Your task to perform on an android device: Open Wikipedia Image 0: 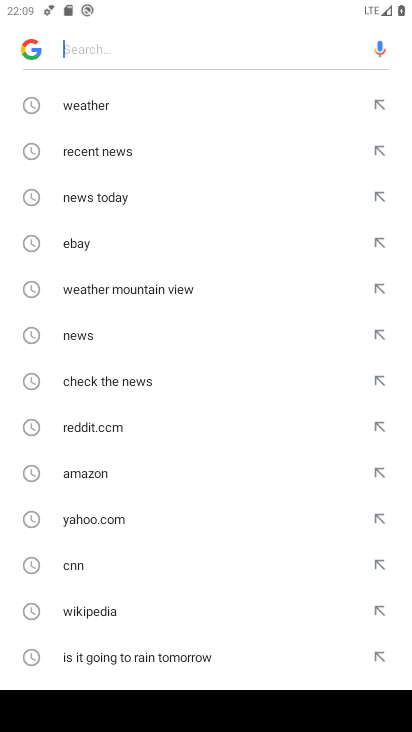
Step 0: press home button
Your task to perform on an android device: Open Wikipedia Image 1: 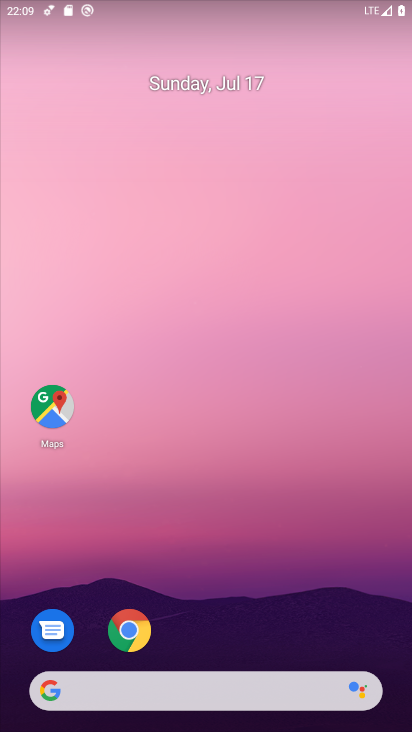
Step 1: drag from (208, 588) to (294, 29)
Your task to perform on an android device: Open Wikipedia Image 2: 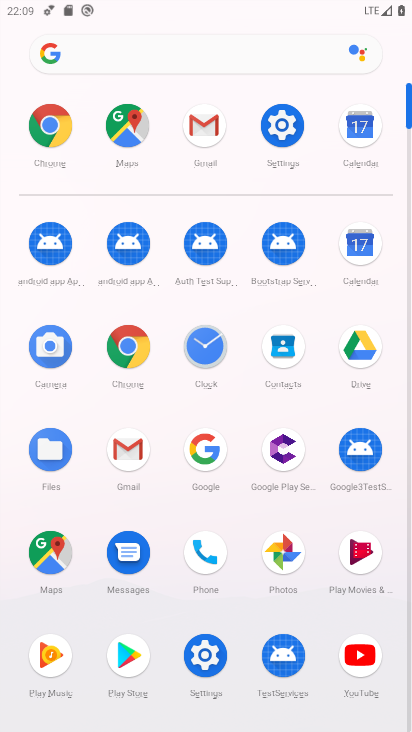
Step 2: click (127, 356)
Your task to perform on an android device: Open Wikipedia Image 3: 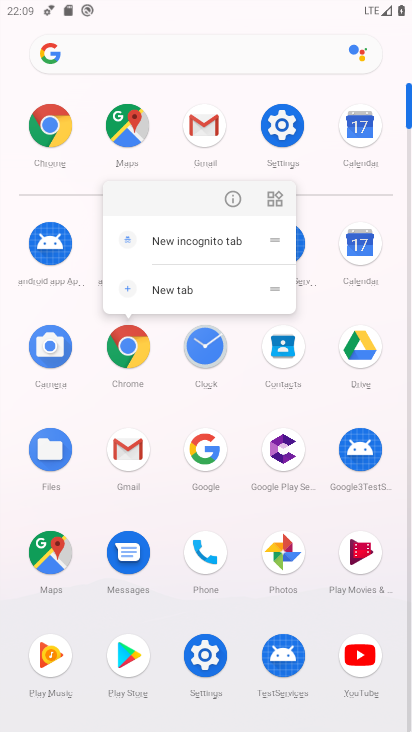
Step 3: click (129, 355)
Your task to perform on an android device: Open Wikipedia Image 4: 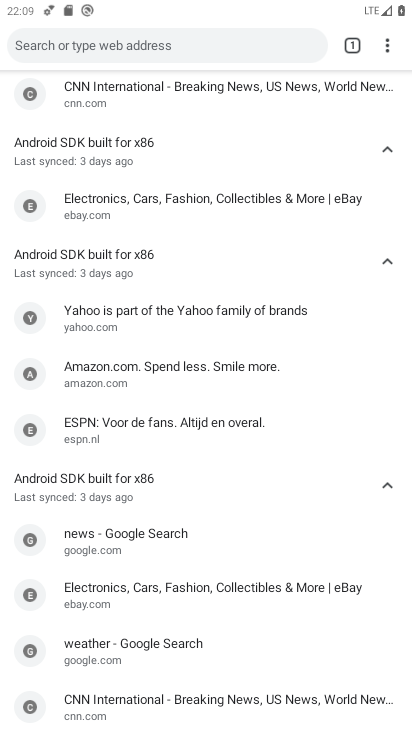
Step 4: click (189, 43)
Your task to perform on an android device: Open Wikipedia Image 5: 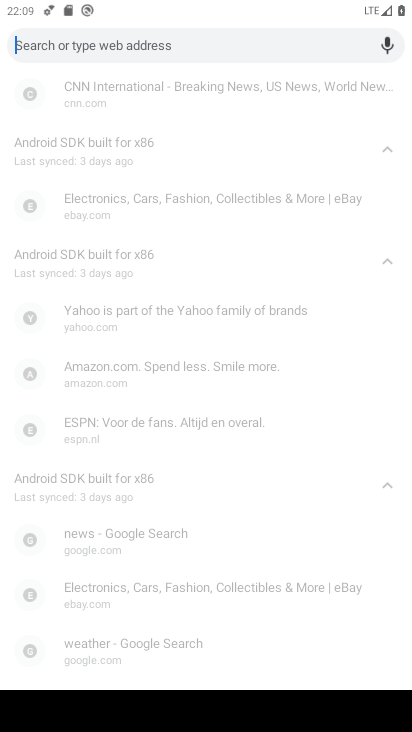
Step 5: type "wikipedia"
Your task to perform on an android device: Open Wikipedia Image 6: 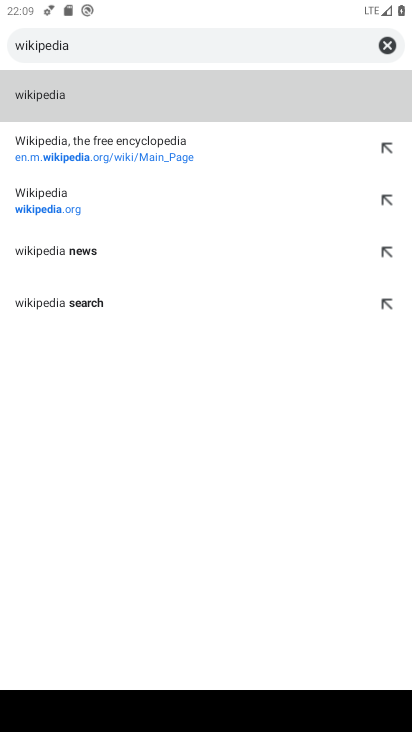
Step 6: click (90, 102)
Your task to perform on an android device: Open Wikipedia Image 7: 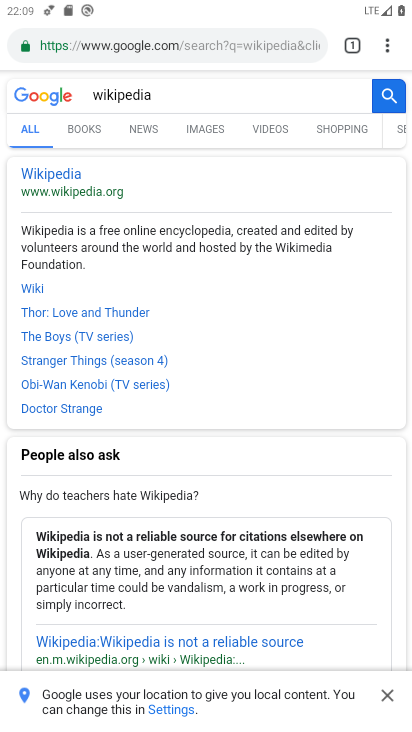
Step 7: task complete